Your task to perform on an android device: Open the Google play store app Image 0: 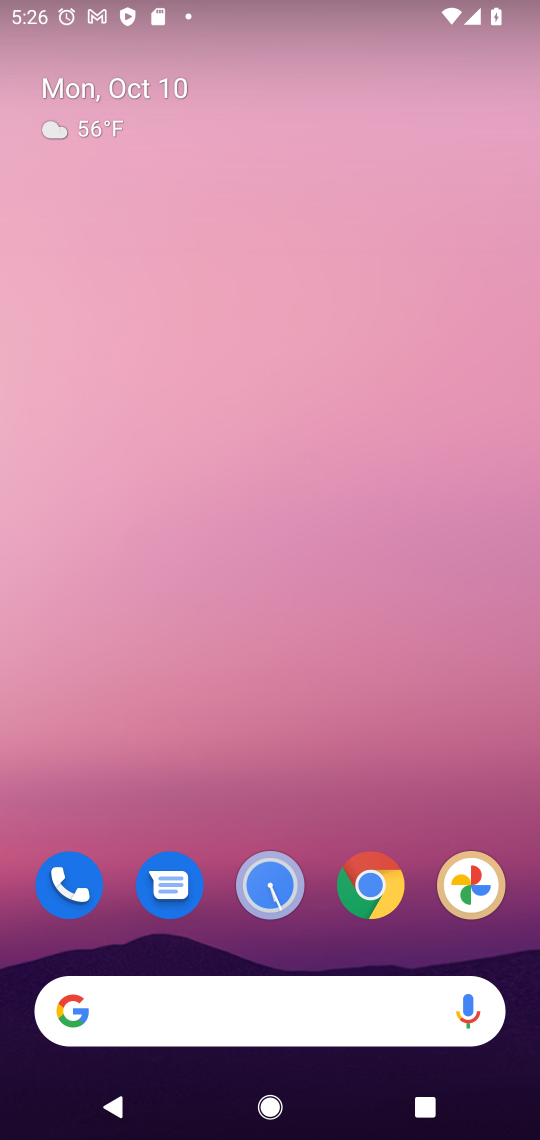
Step 0: drag from (298, 944) to (209, 315)
Your task to perform on an android device: Open the Google play store app Image 1: 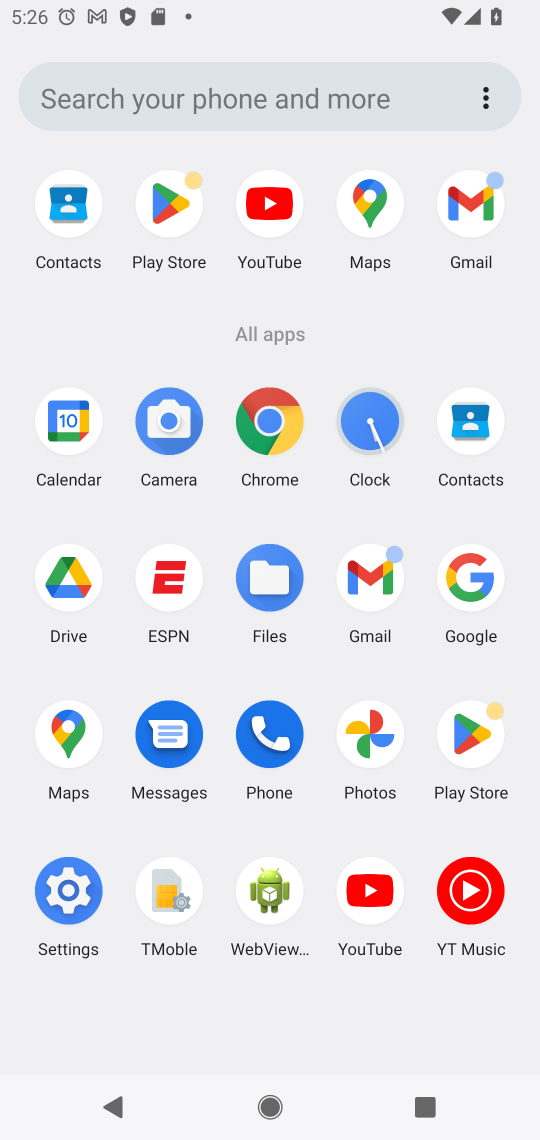
Step 1: click (168, 210)
Your task to perform on an android device: Open the Google play store app Image 2: 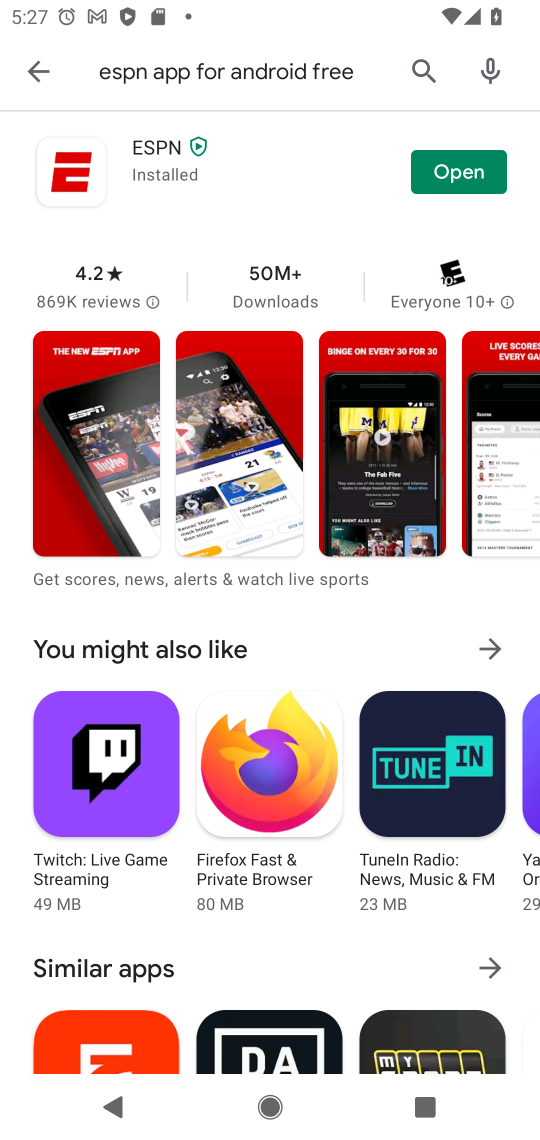
Step 2: click (419, 68)
Your task to perform on an android device: Open the Google play store app Image 3: 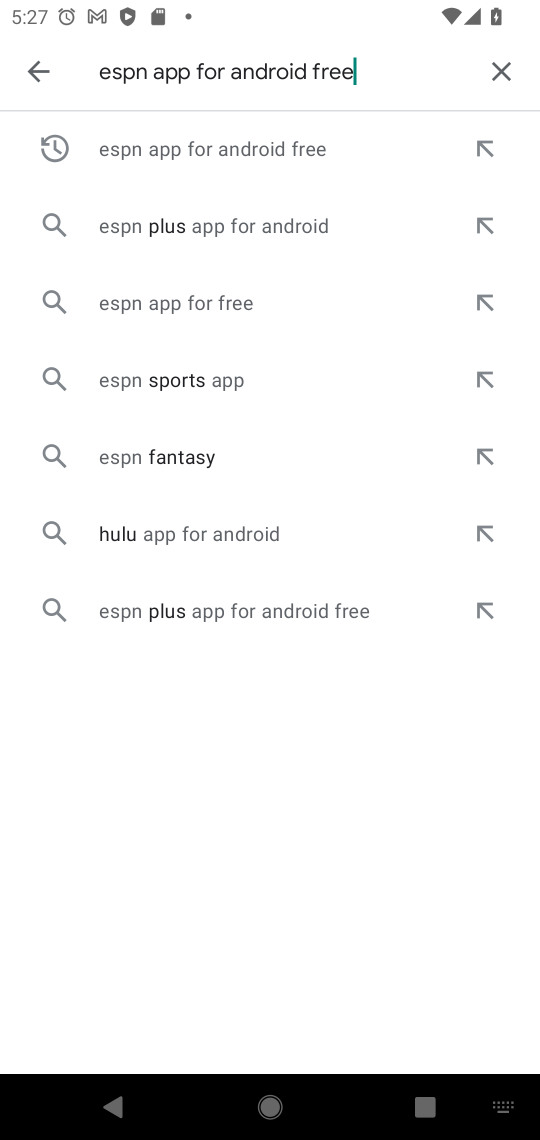
Step 3: click (496, 63)
Your task to perform on an android device: Open the Google play store app Image 4: 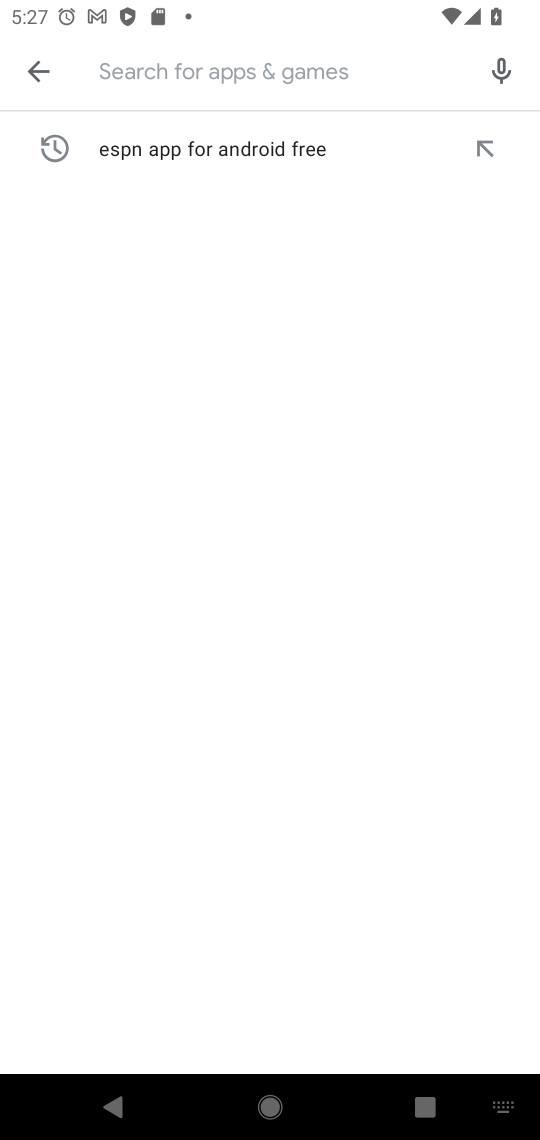
Step 4: click (362, 65)
Your task to perform on an android device: Open the Google play store app Image 5: 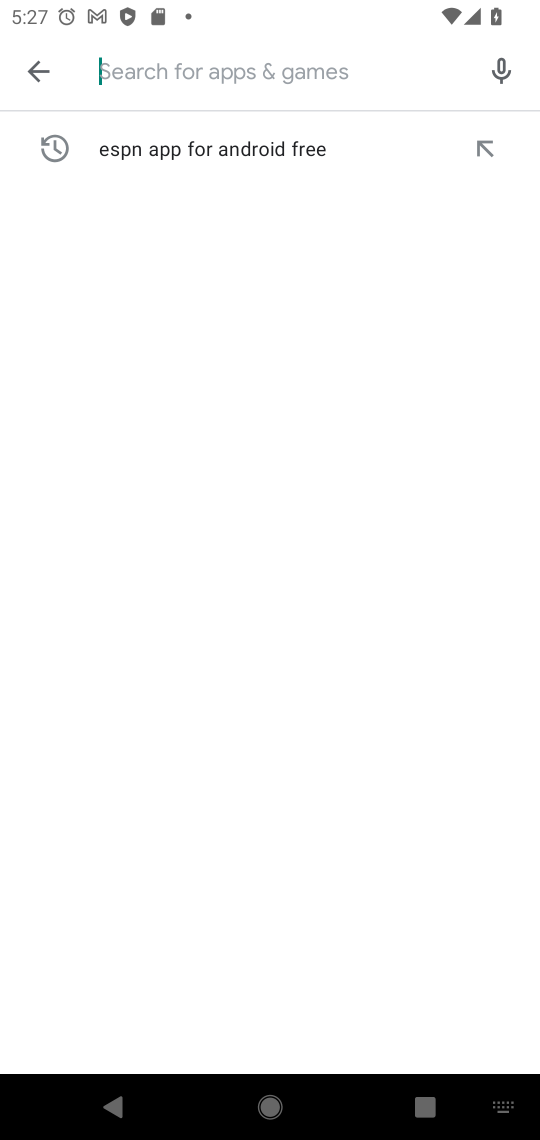
Step 5: click (27, 70)
Your task to perform on an android device: Open the Google play store app Image 6: 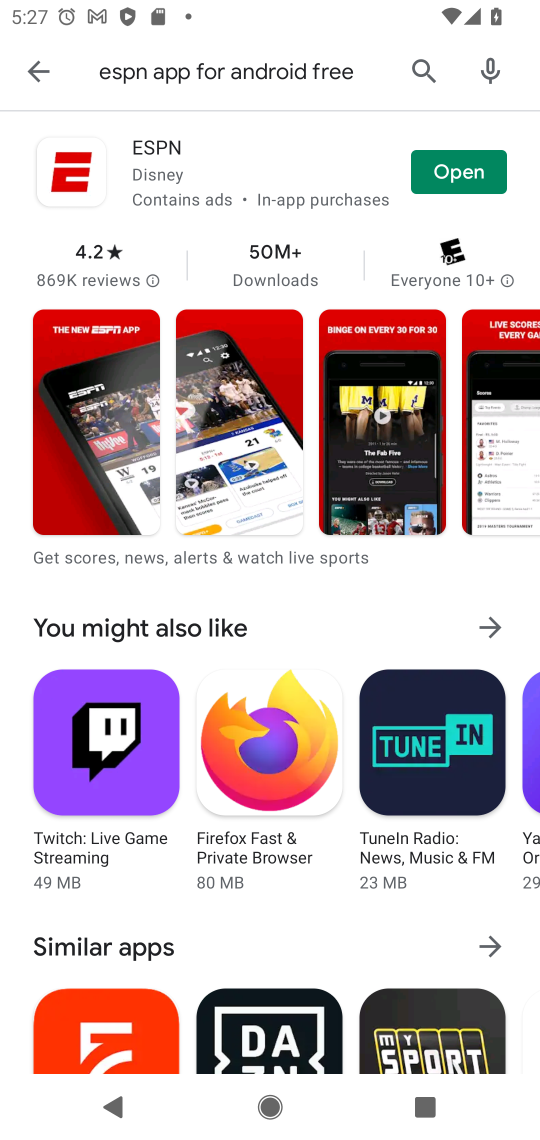
Step 6: click (28, 70)
Your task to perform on an android device: Open the Google play store app Image 7: 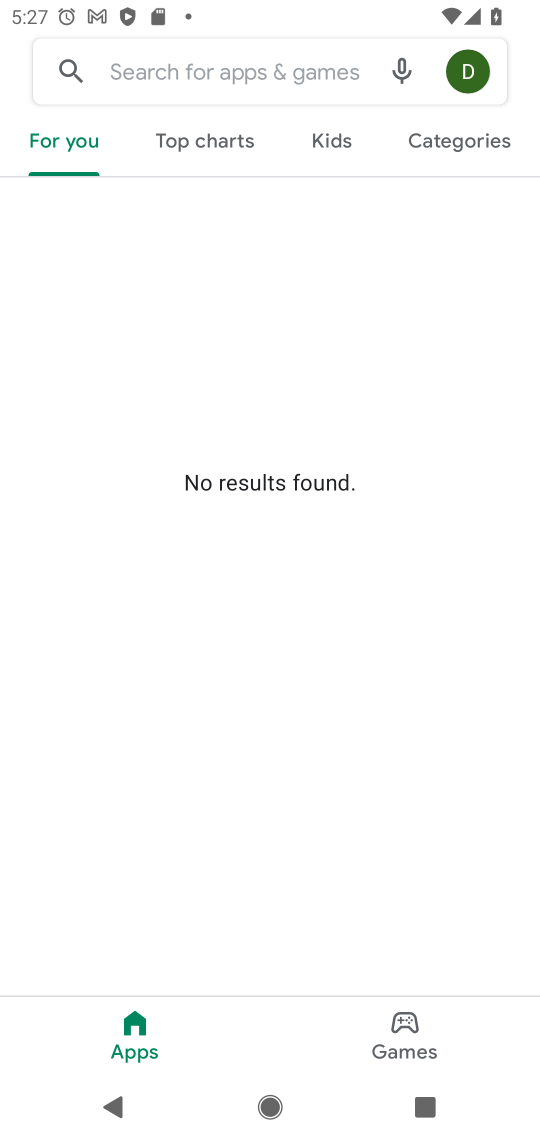
Step 7: task complete